Your task to perform on an android device: Open Wikipedia Image 0: 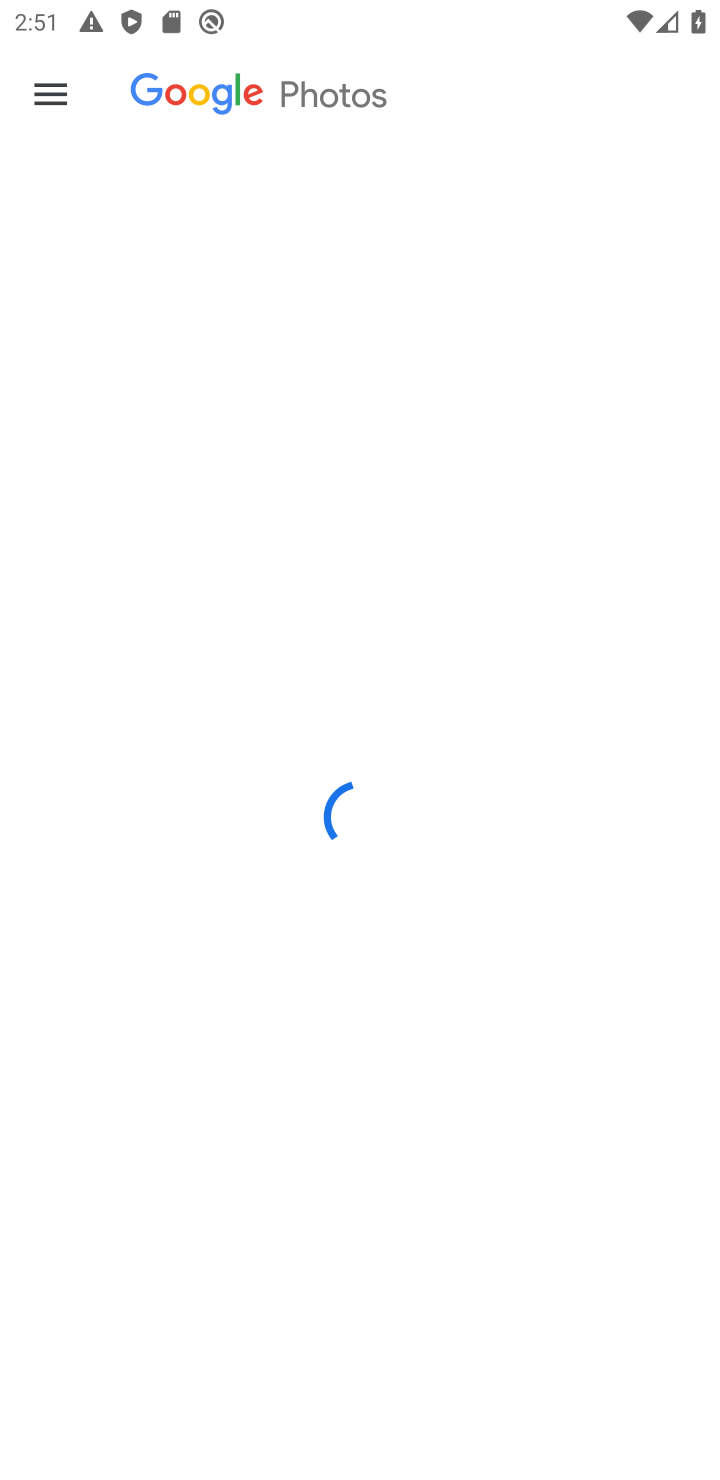
Step 0: press home button
Your task to perform on an android device: Open Wikipedia Image 1: 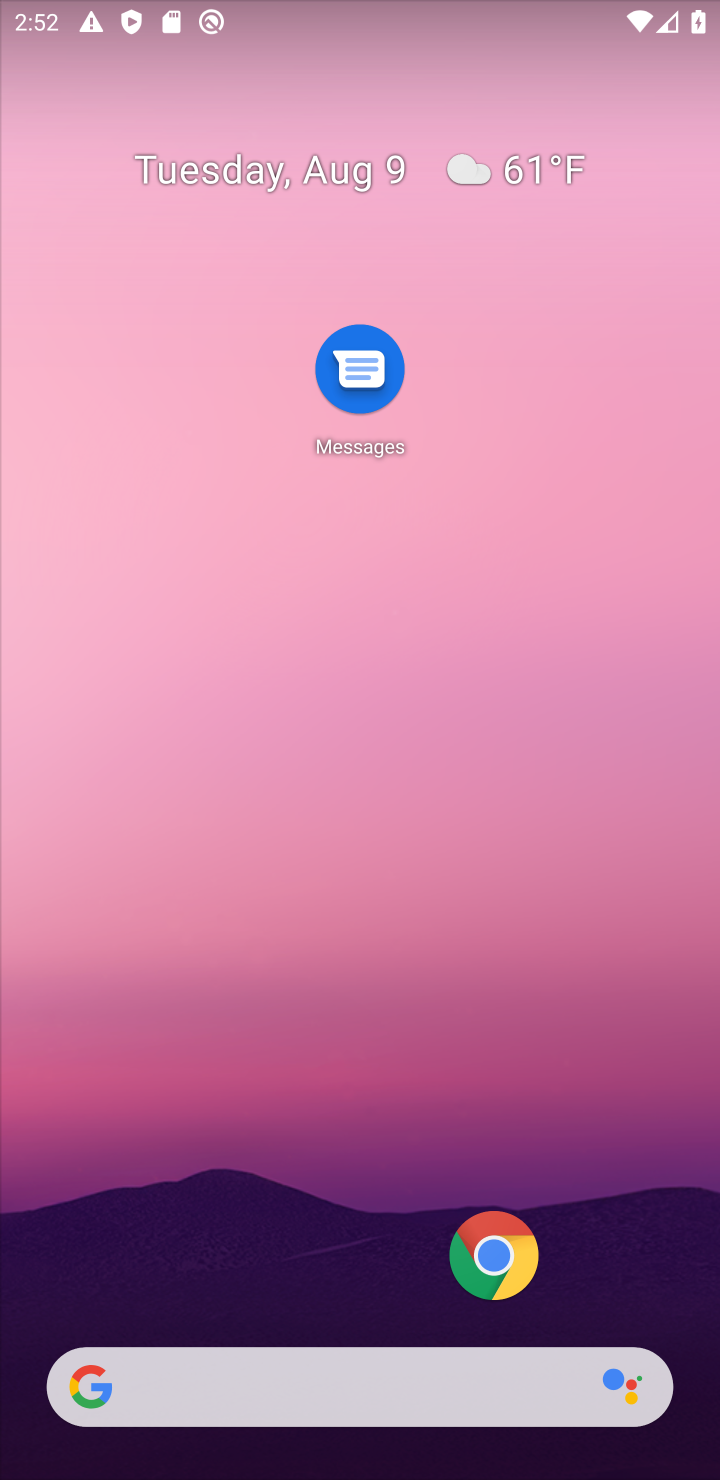
Step 1: drag from (223, 1268) to (262, 240)
Your task to perform on an android device: Open Wikipedia Image 2: 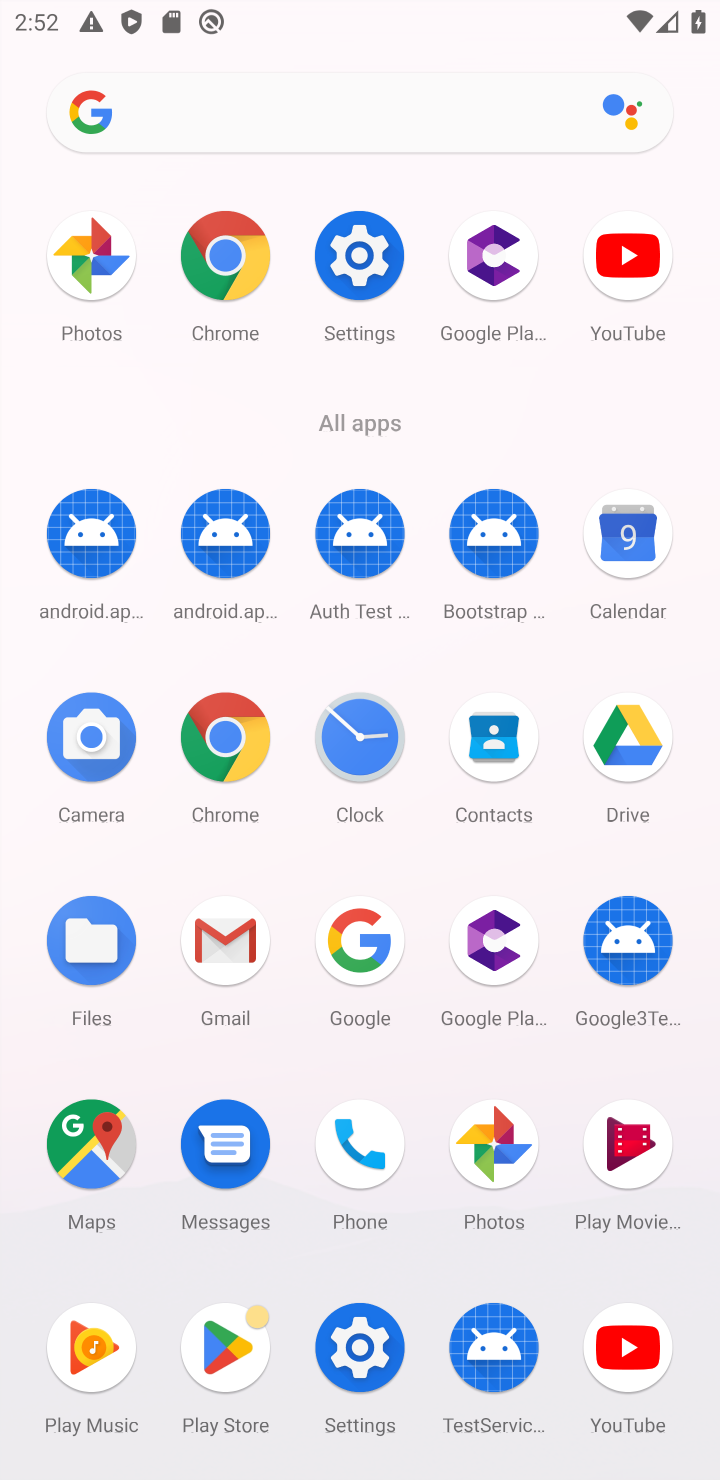
Step 2: click (217, 232)
Your task to perform on an android device: Open Wikipedia Image 3: 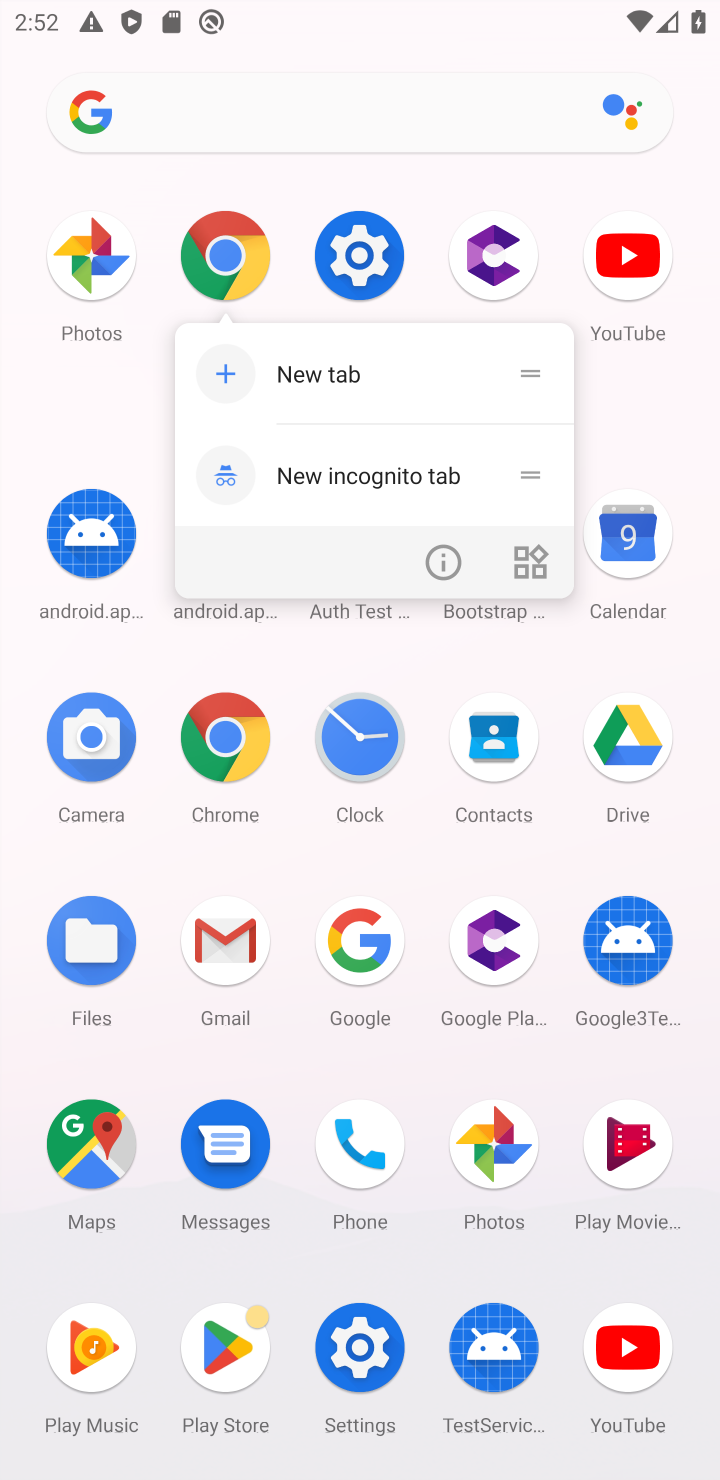
Step 3: click (217, 232)
Your task to perform on an android device: Open Wikipedia Image 4: 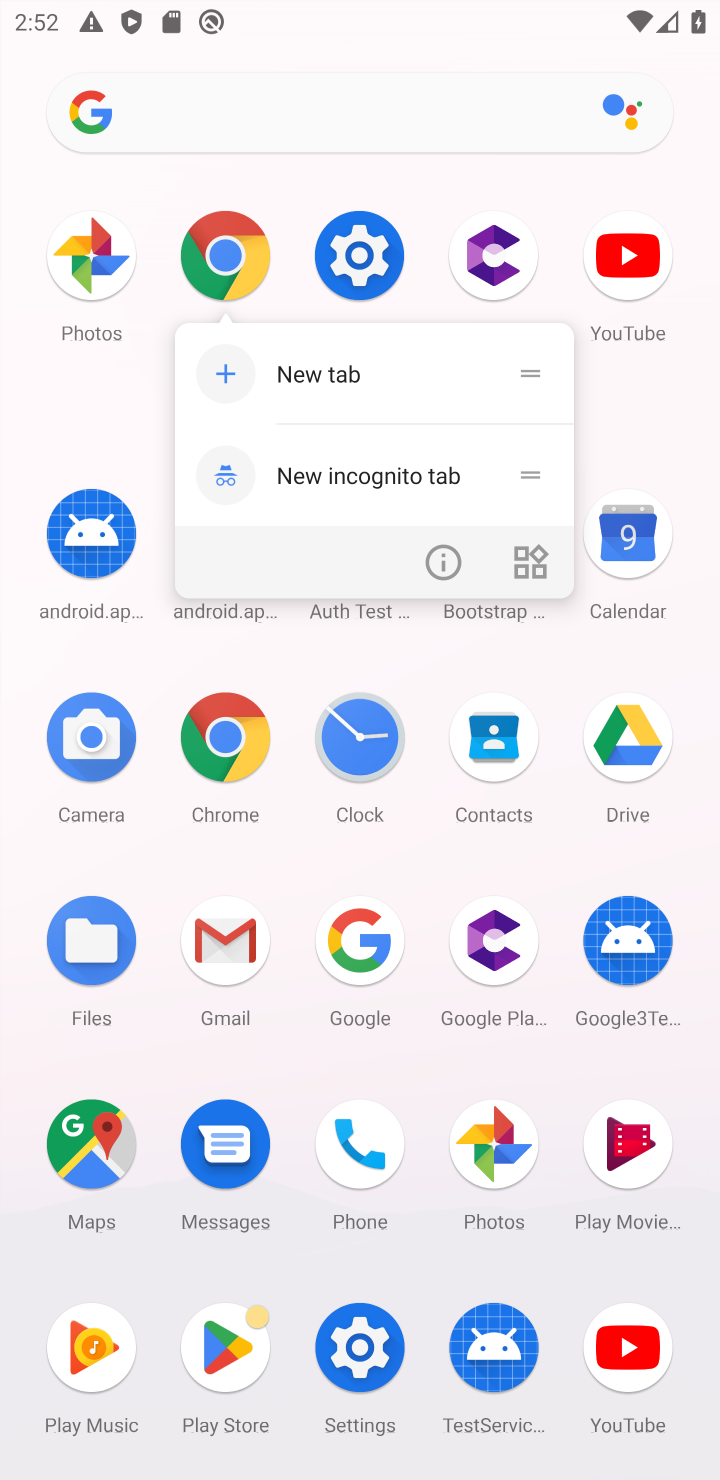
Step 4: click (217, 265)
Your task to perform on an android device: Open Wikipedia Image 5: 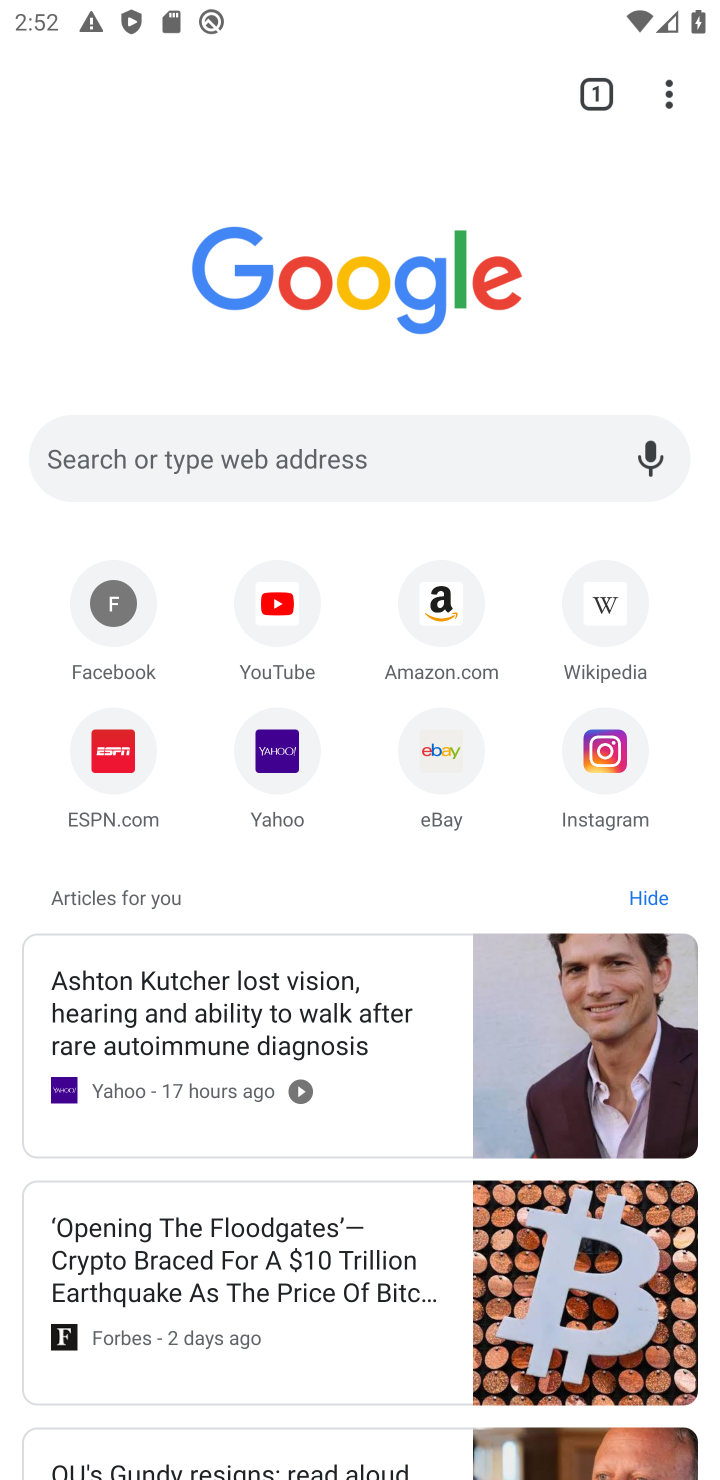
Step 5: click (584, 580)
Your task to perform on an android device: Open Wikipedia Image 6: 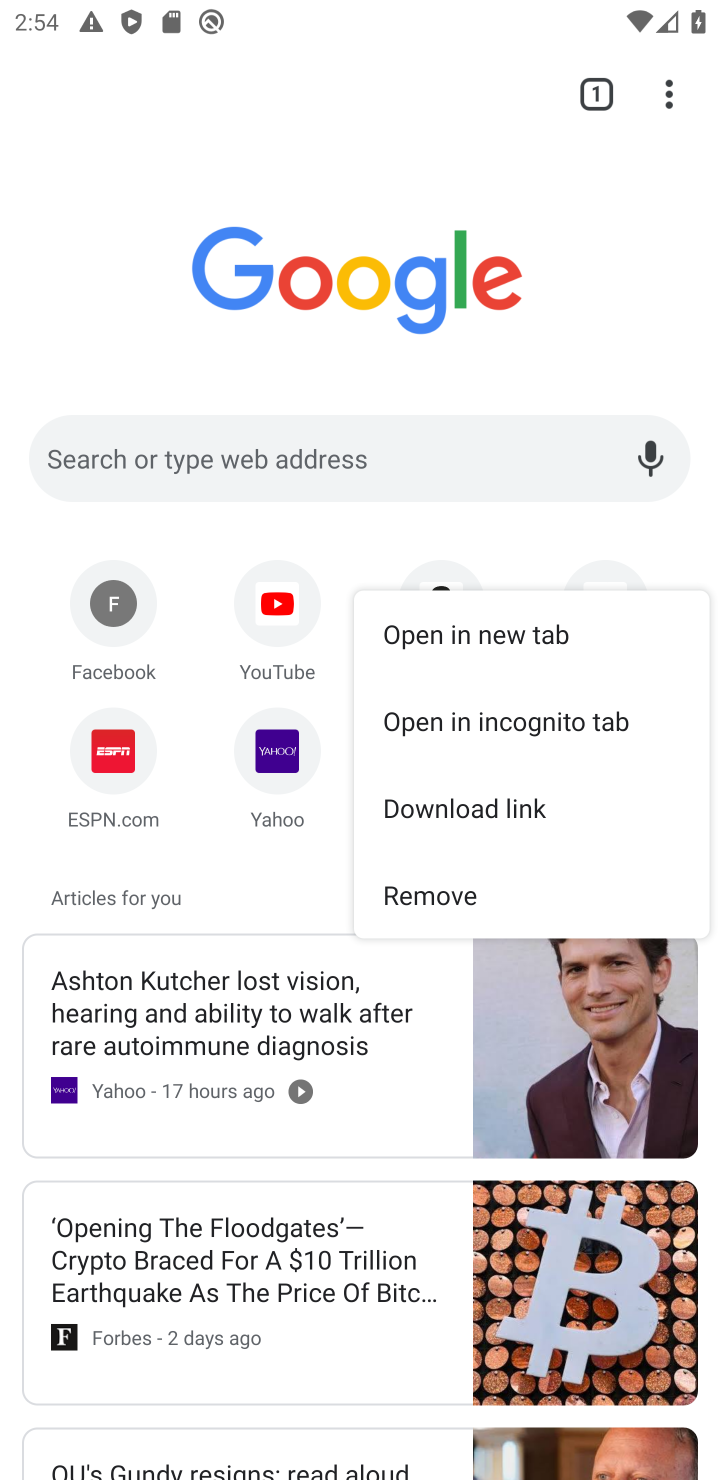
Step 6: task complete